Your task to perform on an android device: Open display settings Image 0: 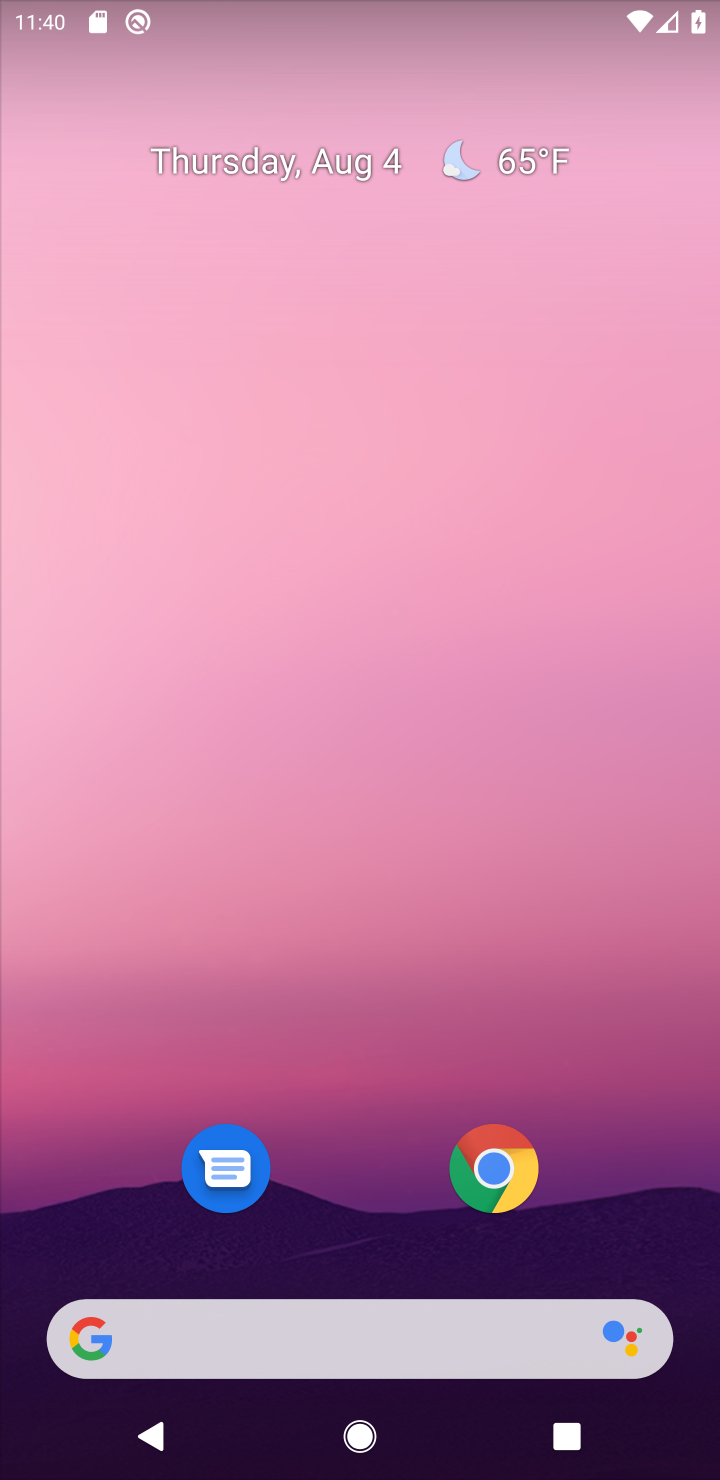
Step 0: drag from (394, 1150) to (417, 340)
Your task to perform on an android device: Open display settings Image 1: 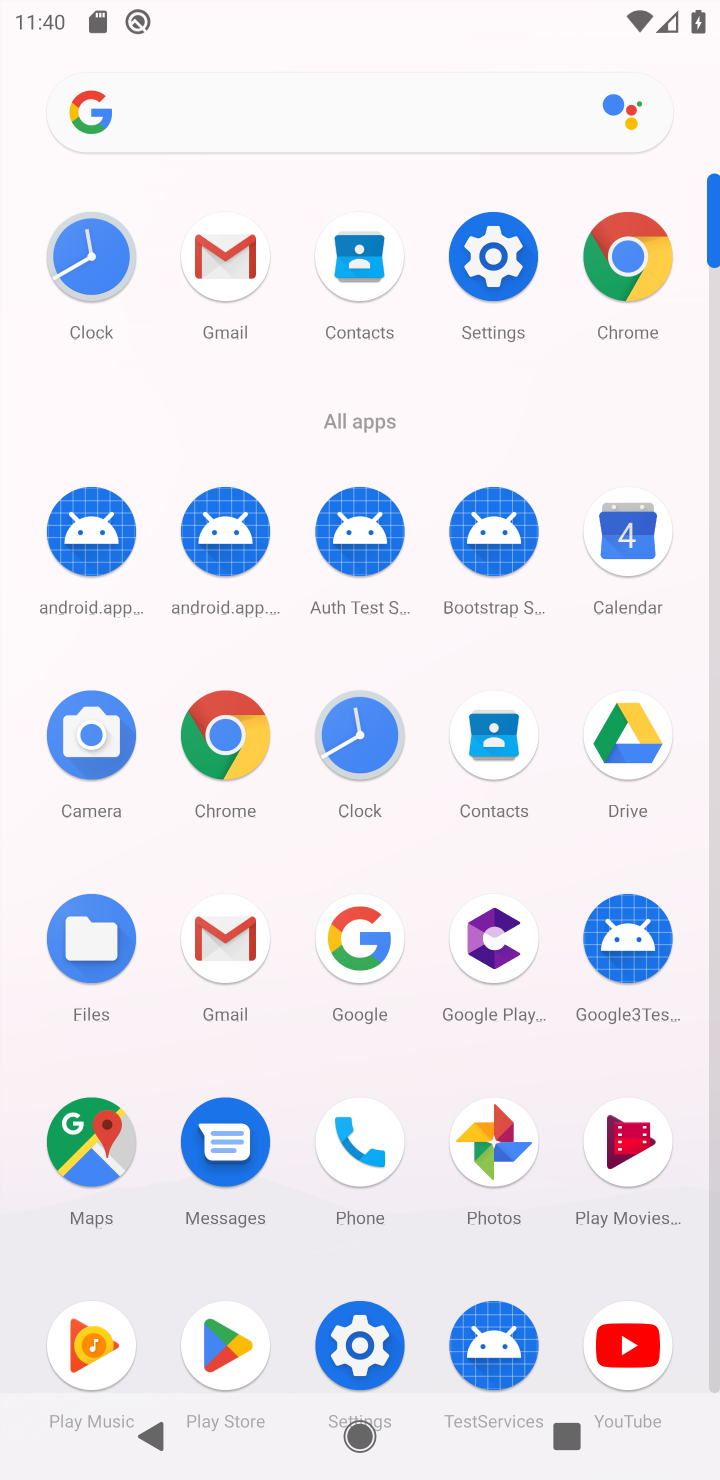
Step 1: click (488, 295)
Your task to perform on an android device: Open display settings Image 2: 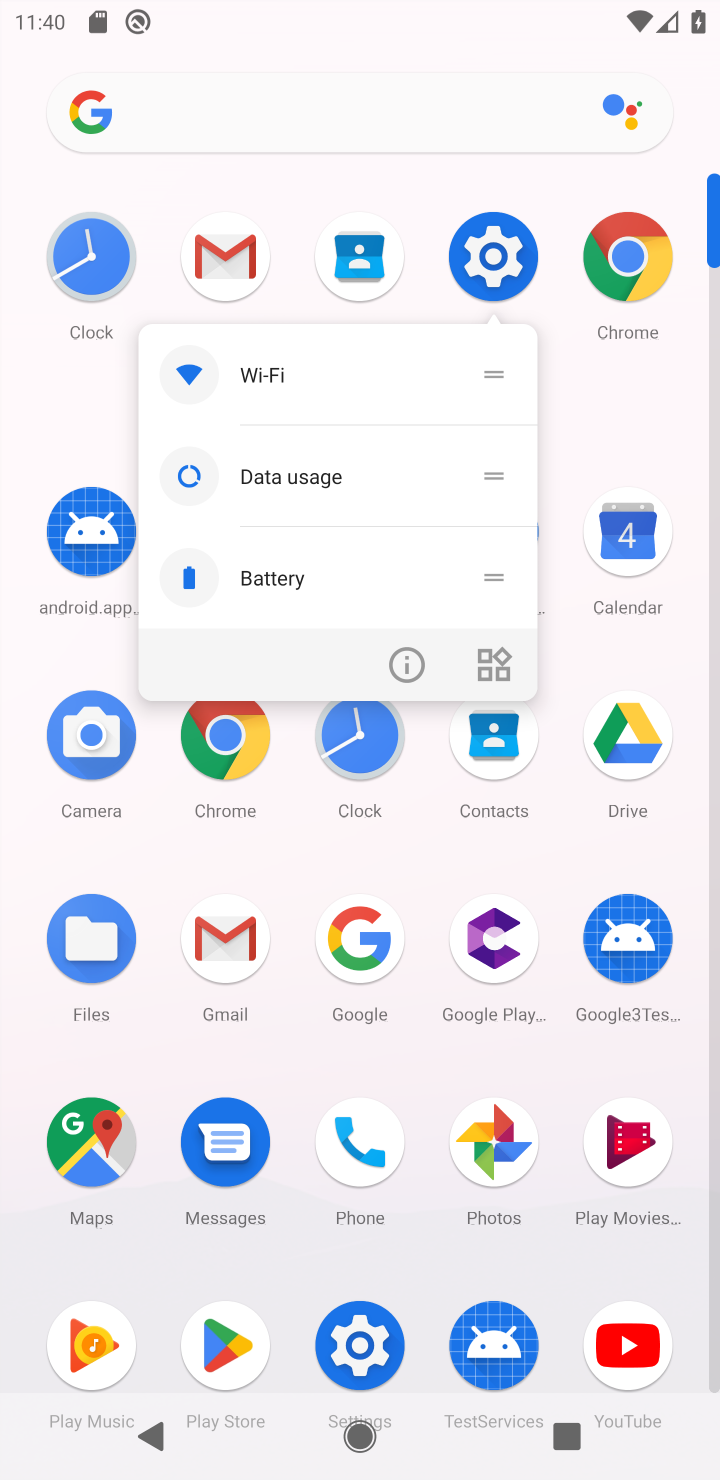
Step 2: click (484, 270)
Your task to perform on an android device: Open display settings Image 3: 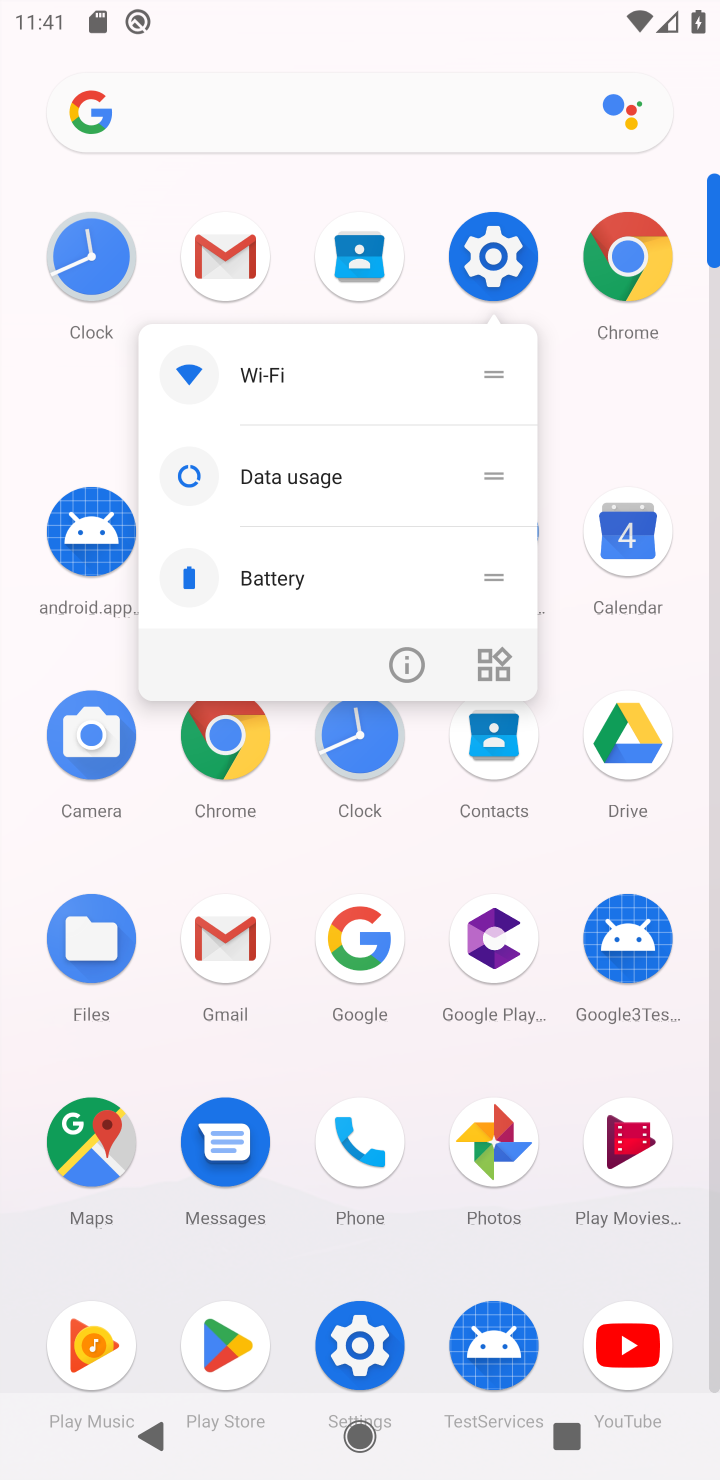
Step 3: click (510, 281)
Your task to perform on an android device: Open display settings Image 4: 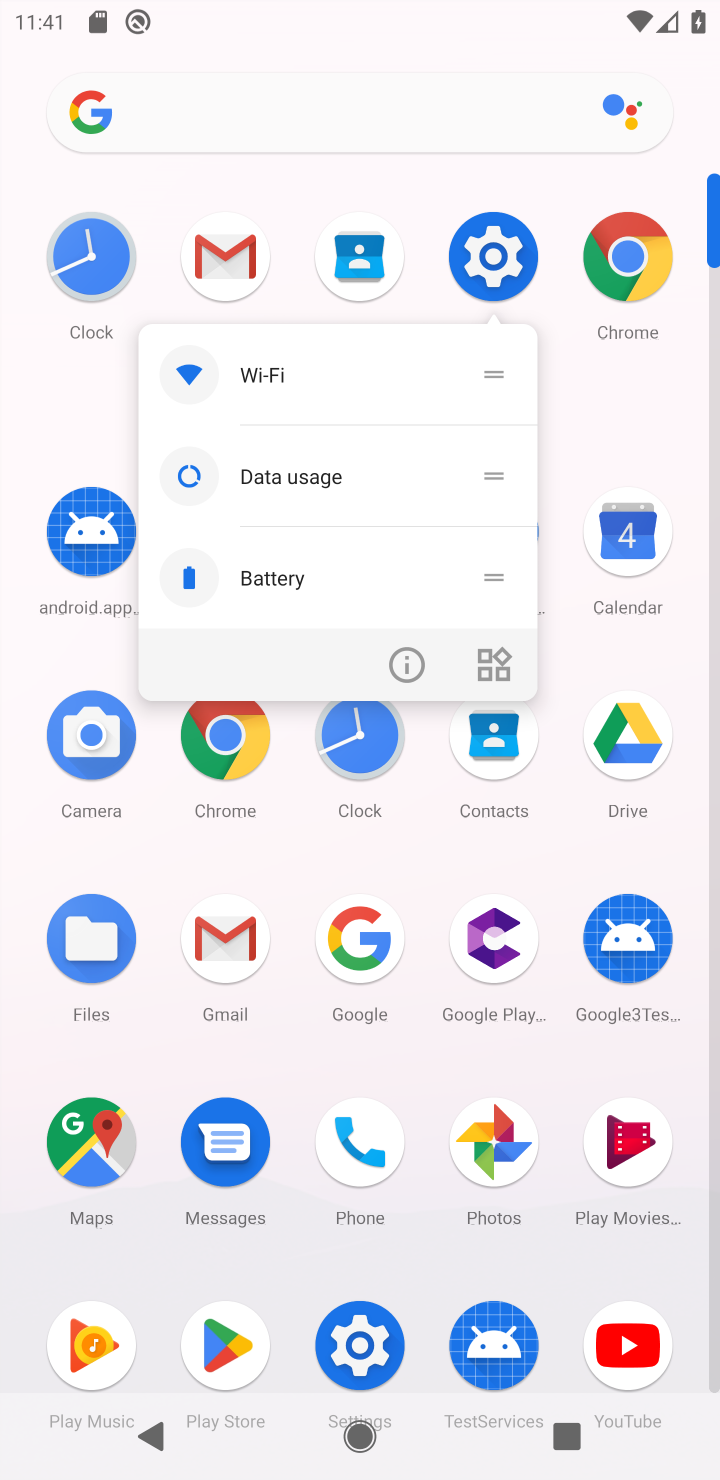
Step 4: click (467, 279)
Your task to perform on an android device: Open display settings Image 5: 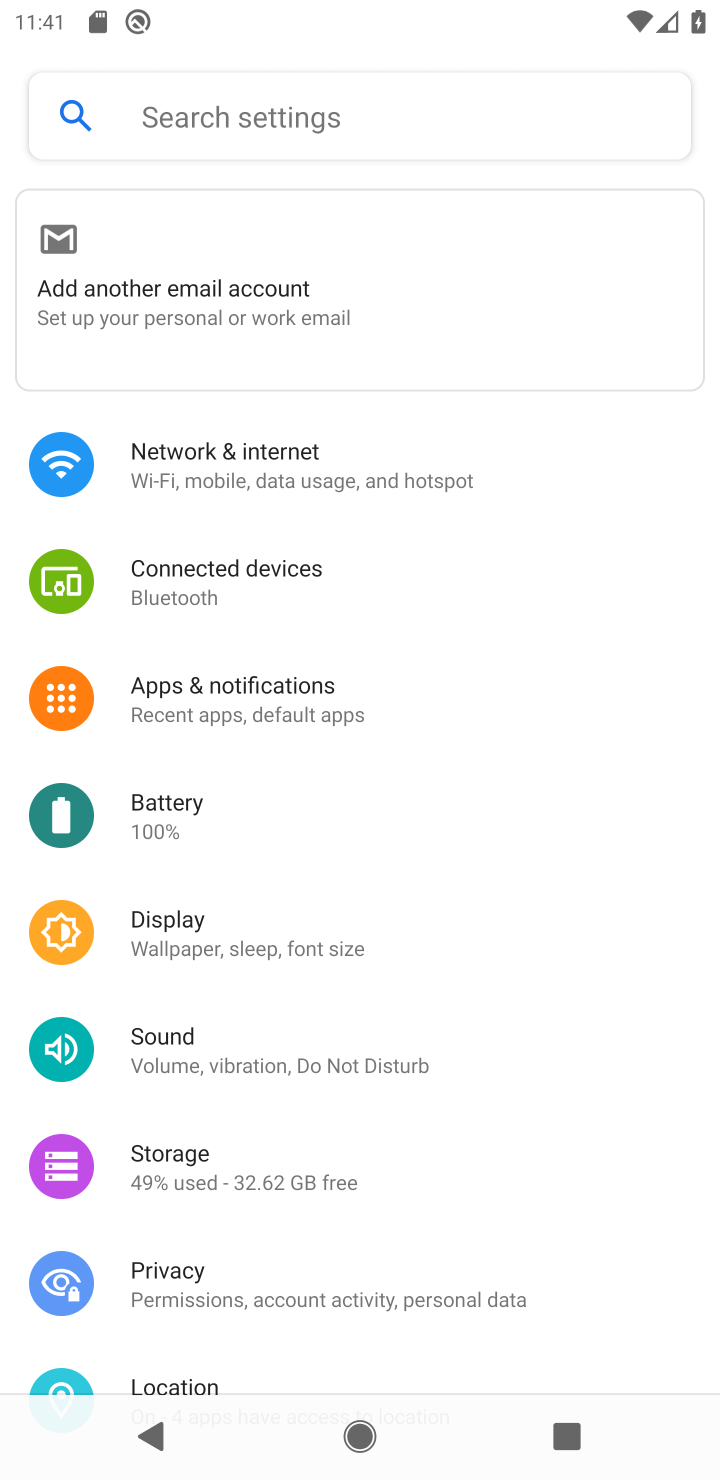
Step 5: click (224, 944)
Your task to perform on an android device: Open display settings Image 6: 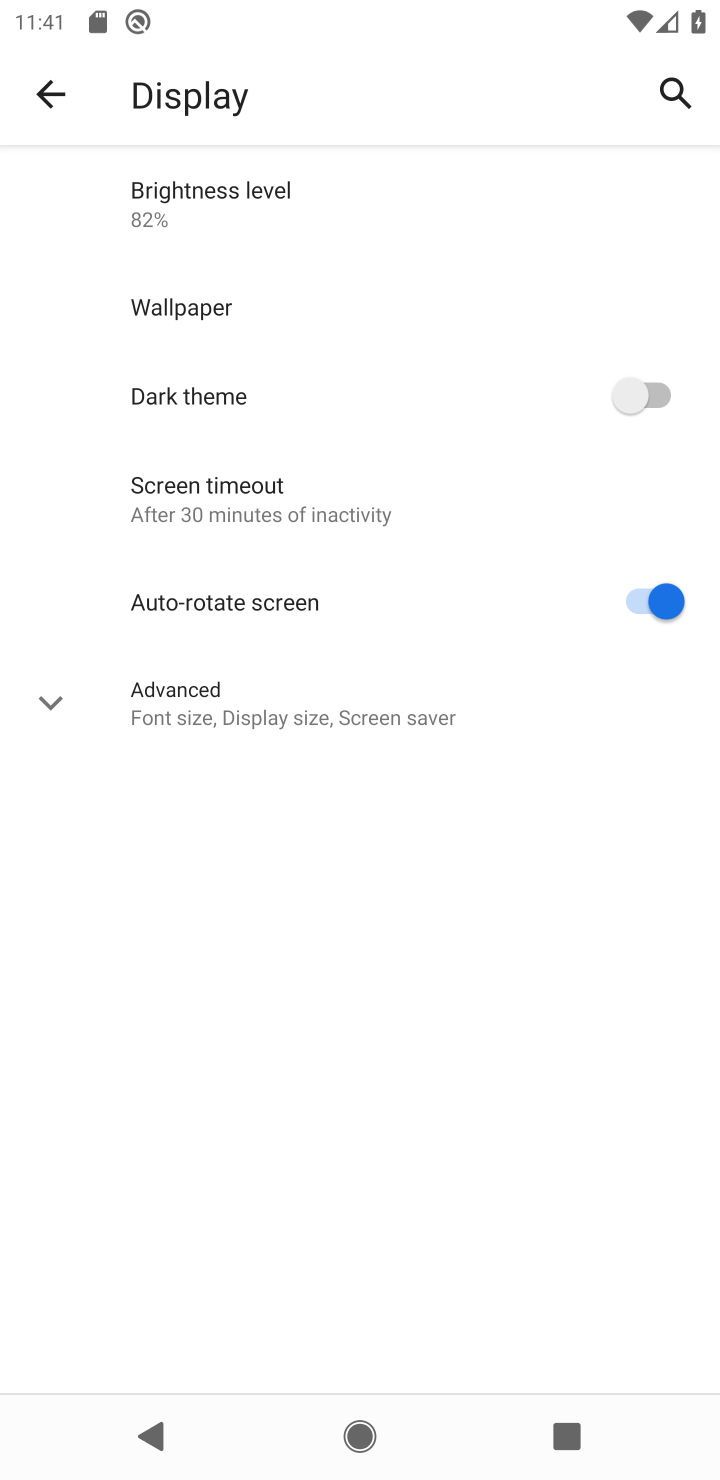
Step 6: task complete